Your task to perform on an android device: uninstall "HBO Max: Stream TV & Movies" Image 0: 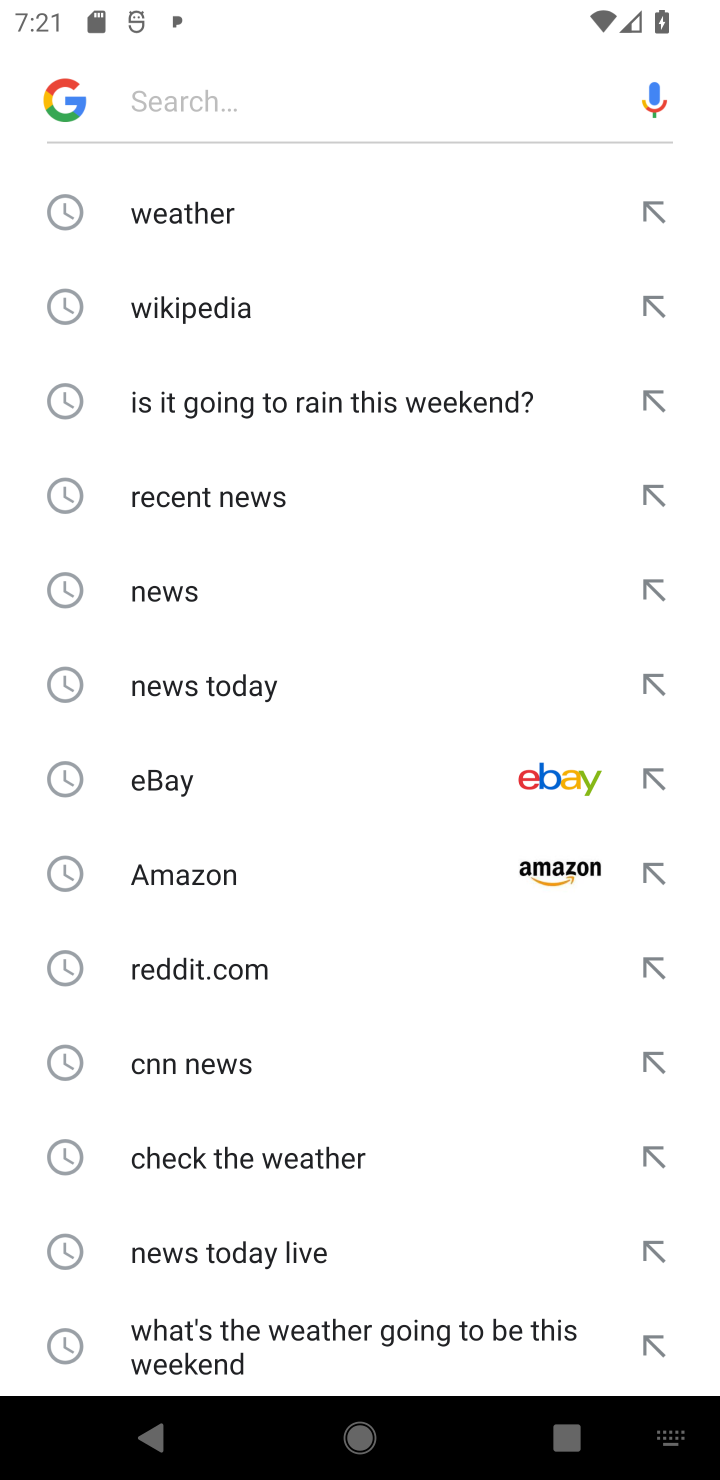
Step 0: press home button
Your task to perform on an android device: uninstall "HBO Max: Stream TV & Movies" Image 1: 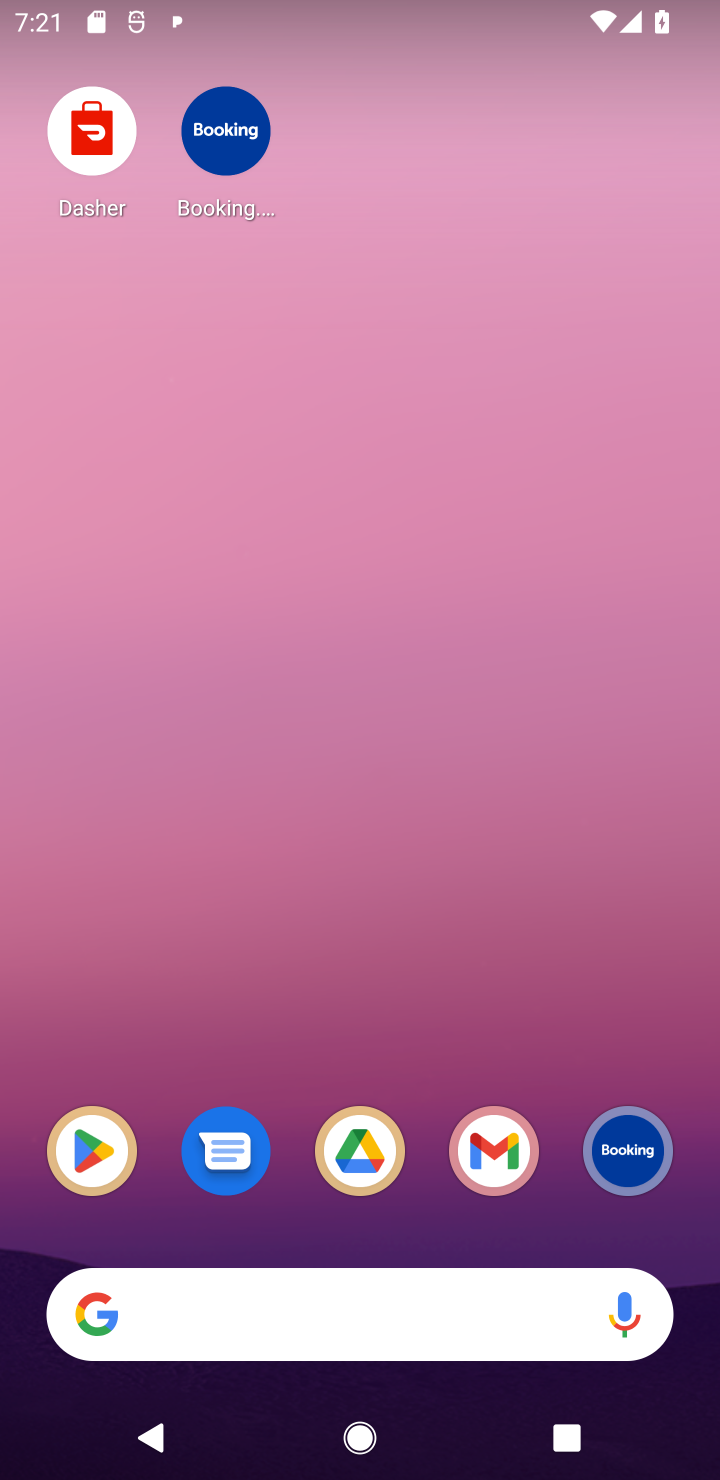
Step 1: click (73, 1163)
Your task to perform on an android device: uninstall "HBO Max: Stream TV & Movies" Image 2: 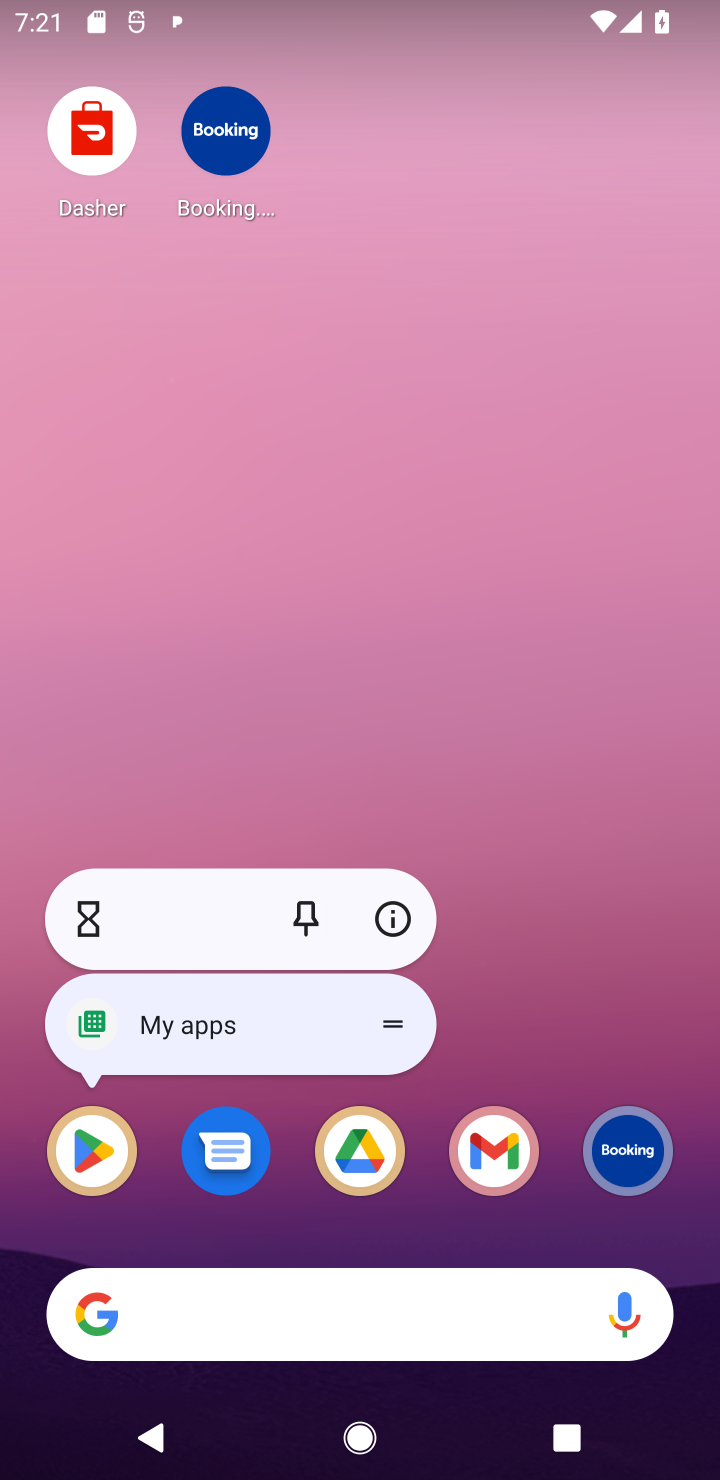
Step 2: click (84, 1159)
Your task to perform on an android device: uninstall "HBO Max: Stream TV & Movies" Image 3: 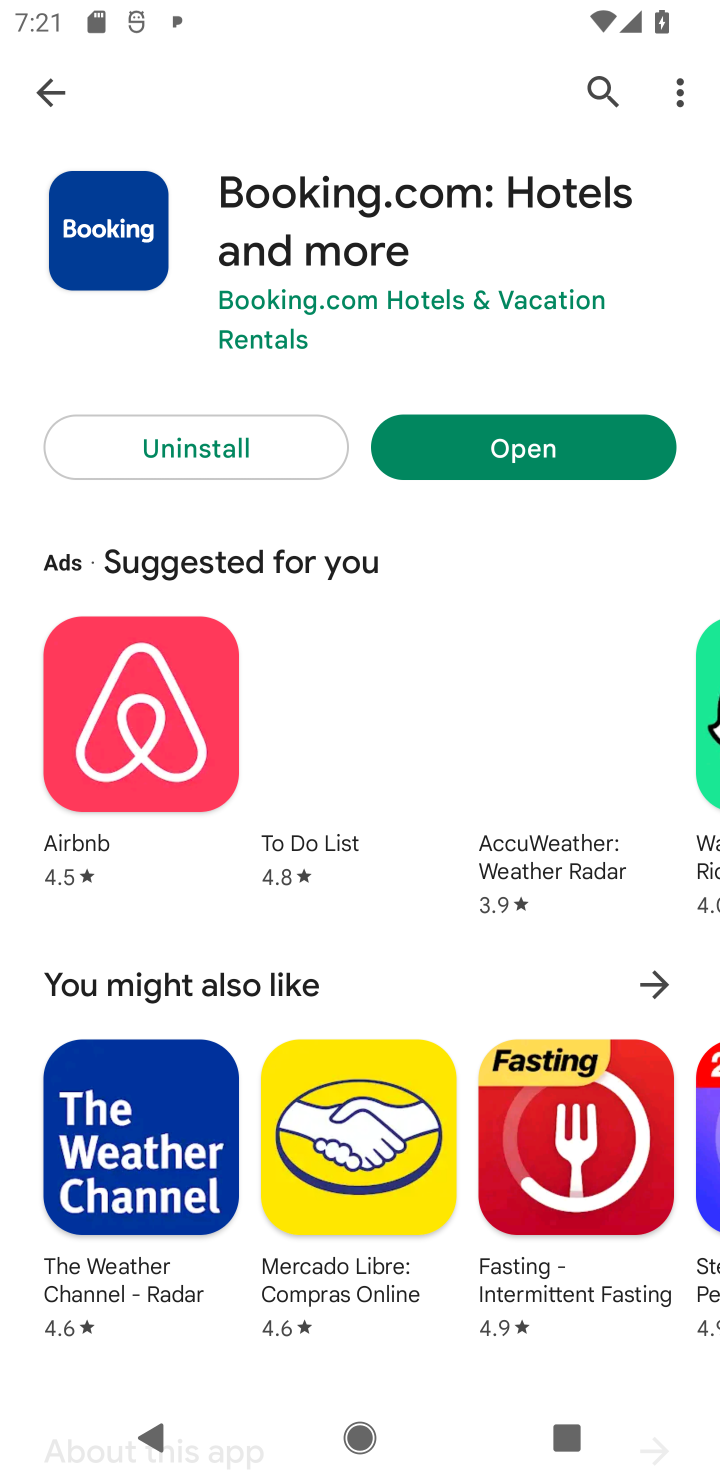
Step 3: click (598, 88)
Your task to perform on an android device: uninstall "HBO Max: Stream TV & Movies" Image 4: 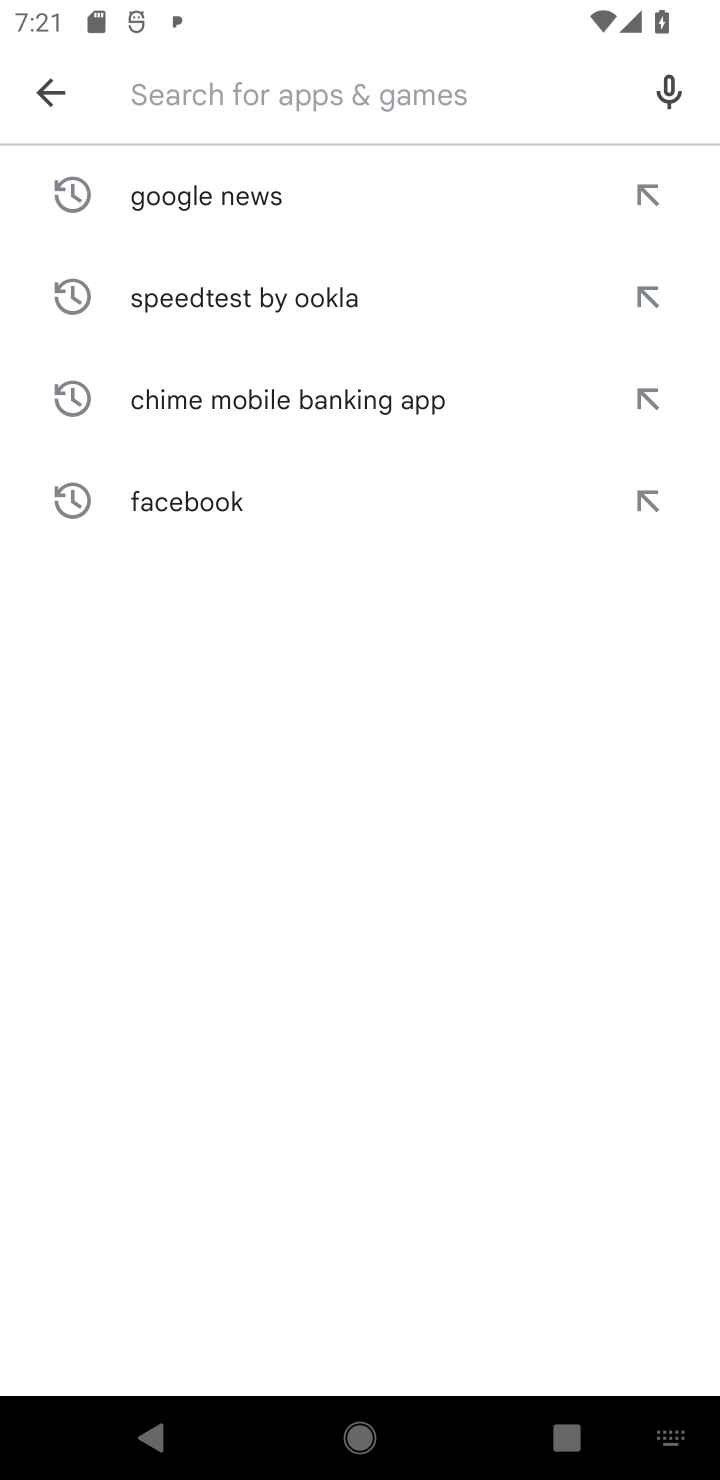
Step 4: type "HBO Max: Stream TV & Movies"
Your task to perform on an android device: uninstall "HBO Max: Stream TV & Movies" Image 5: 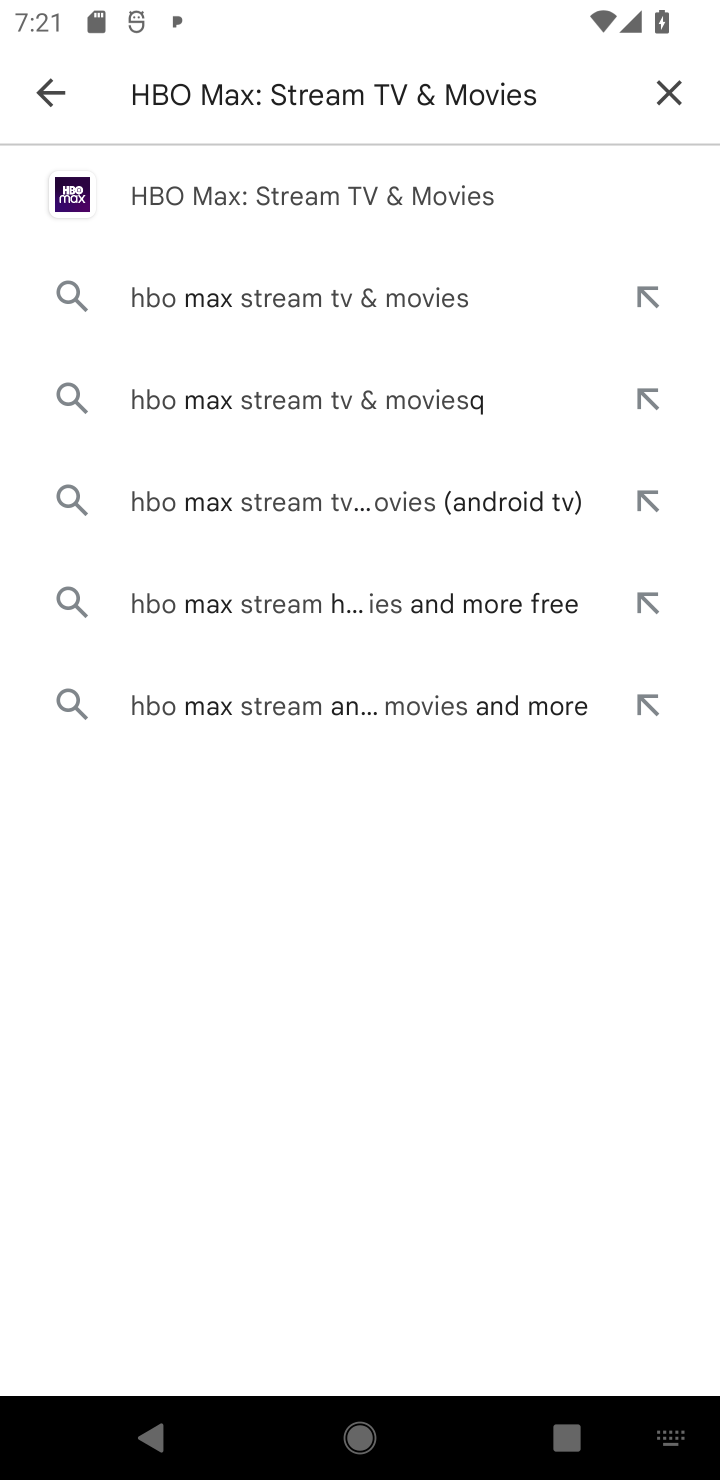
Step 5: click (291, 206)
Your task to perform on an android device: uninstall "HBO Max: Stream TV & Movies" Image 6: 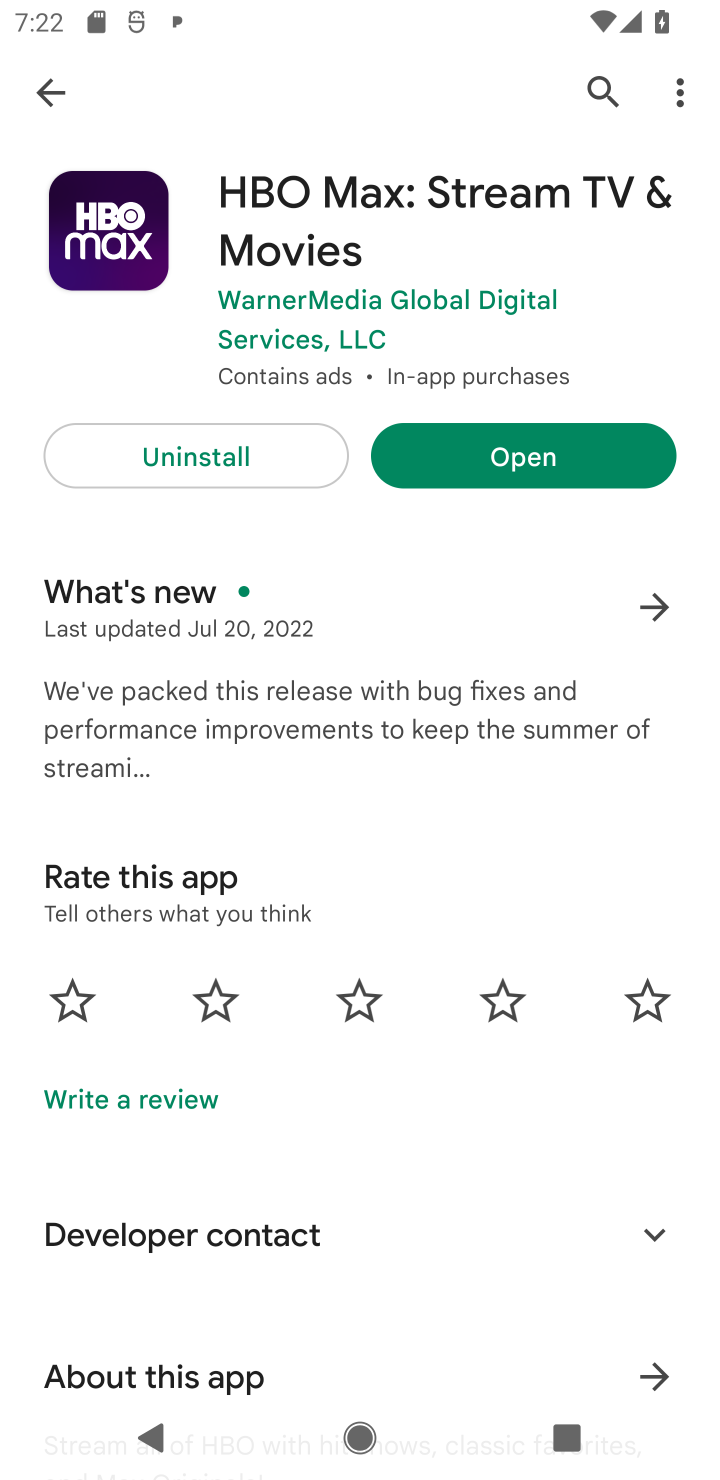
Step 6: click (148, 472)
Your task to perform on an android device: uninstall "HBO Max: Stream TV & Movies" Image 7: 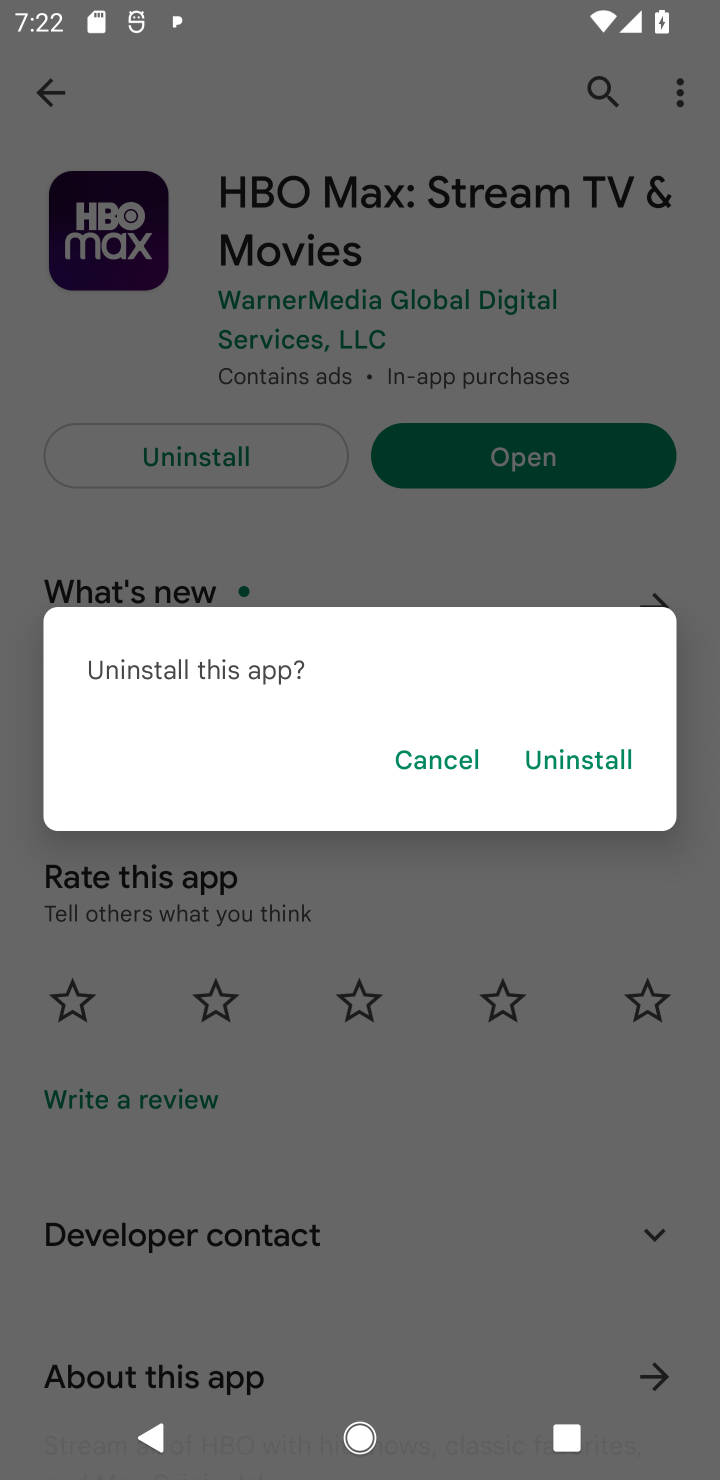
Step 7: click (570, 778)
Your task to perform on an android device: uninstall "HBO Max: Stream TV & Movies" Image 8: 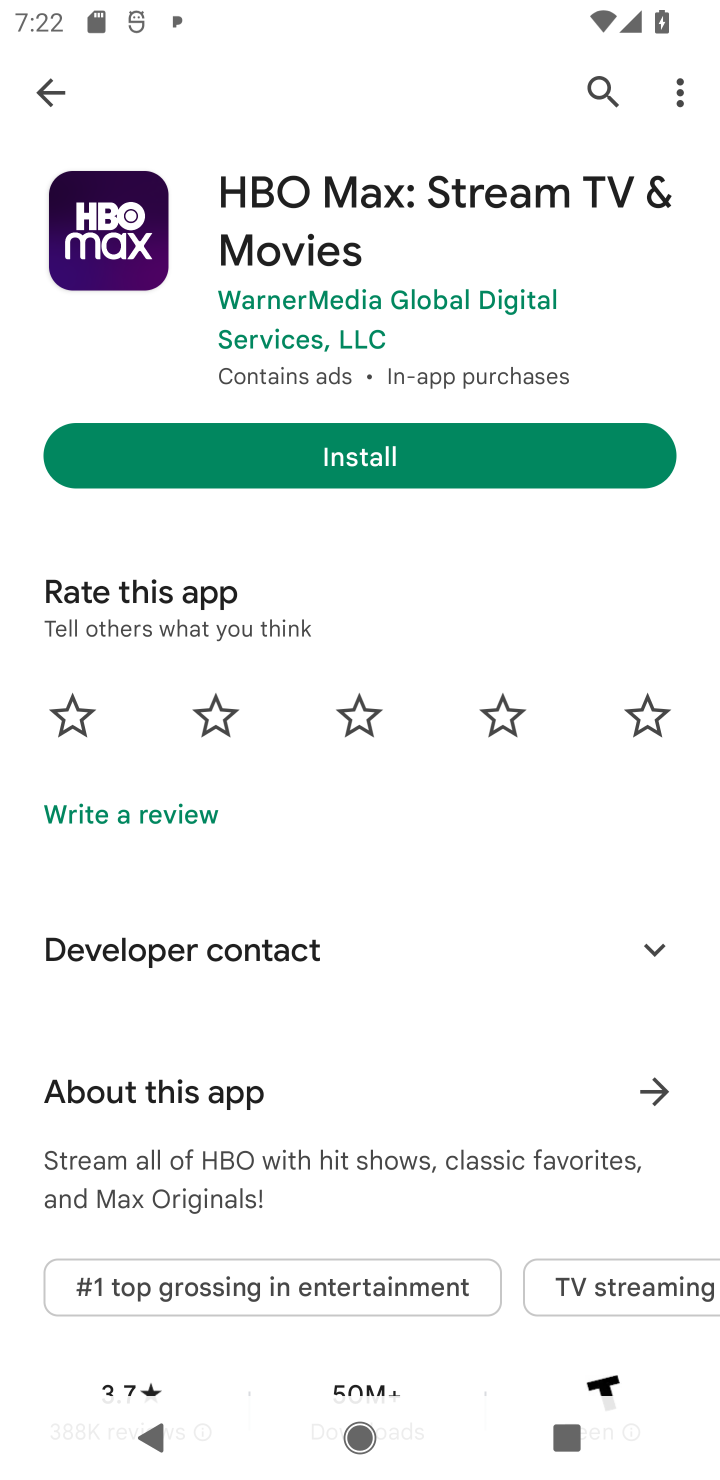
Step 8: task complete